Your task to perform on an android device: turn off airplane mode Image 0: 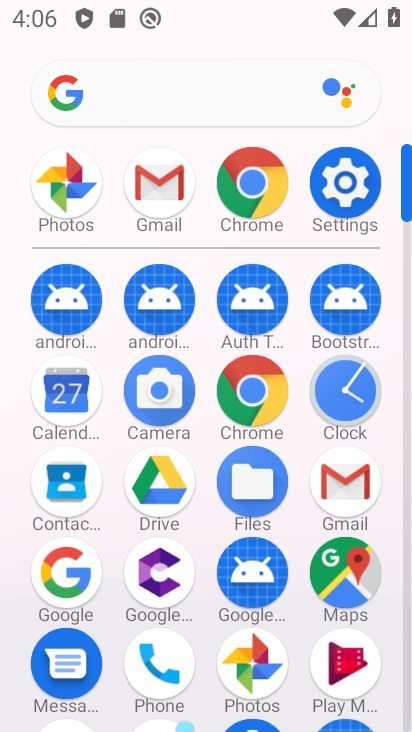
Step 0: click (325, 181)
Your task to perform on an android device: turn off airplane mode Image 1: 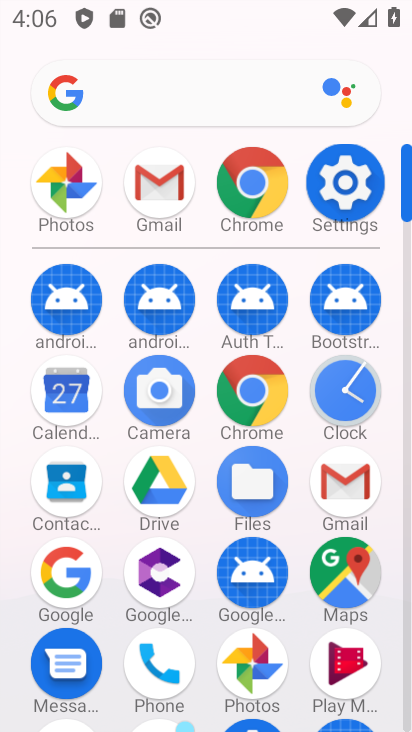
Step 1: click (325, 181)
Your task to perform on an android device: turn off airplane mode Image 2: 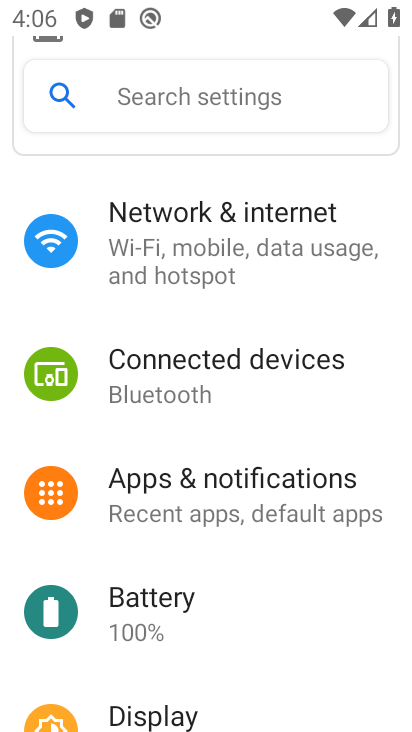
Step 2: click (331, 182)
Your task to perform on an android device: turn off airplane mode Image 3: 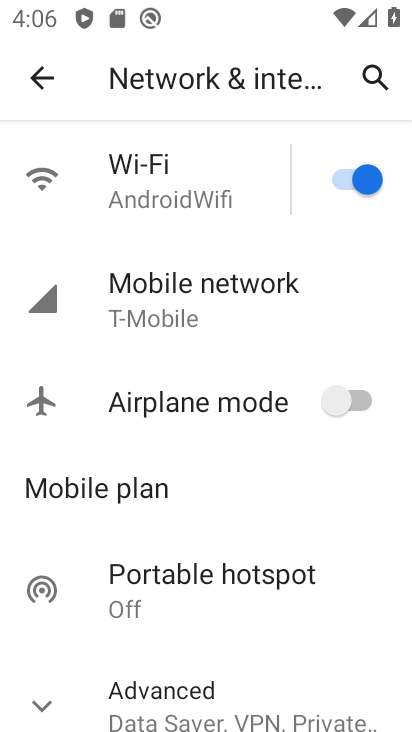
Step 3: task complete